Your task to perform on an android device: Go to eBay Image 0: 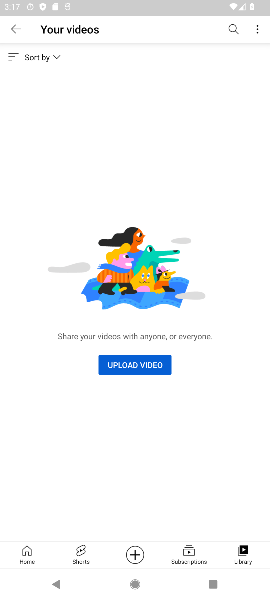
Step 0: press home button
Your task to perform on an android device: Go to eBay Image 1: 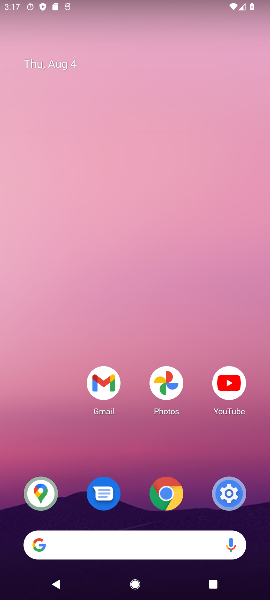
Step 1: click (93, 551)
Your task to perform on an android device: Go to eBay Image 2: 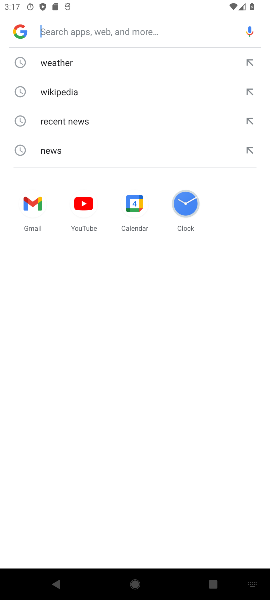
Step 2: type "eBay"
Your task to perform on an android device: Go to eBay Image 3: 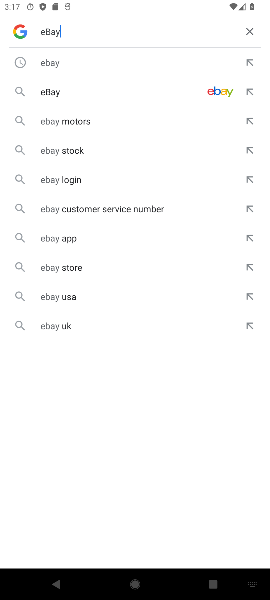
Step 3: click (55, 94)
Your task to perform on an android device: Go to eBay Image 4: 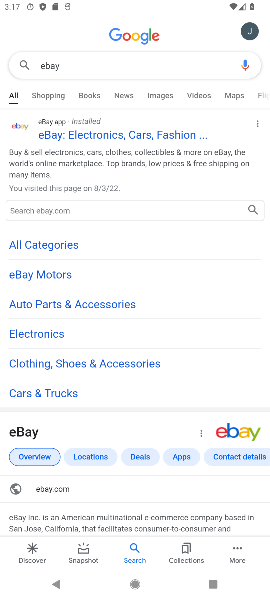
Step 4: task complete